Your task to perform on an android device: Open Google Image 0: 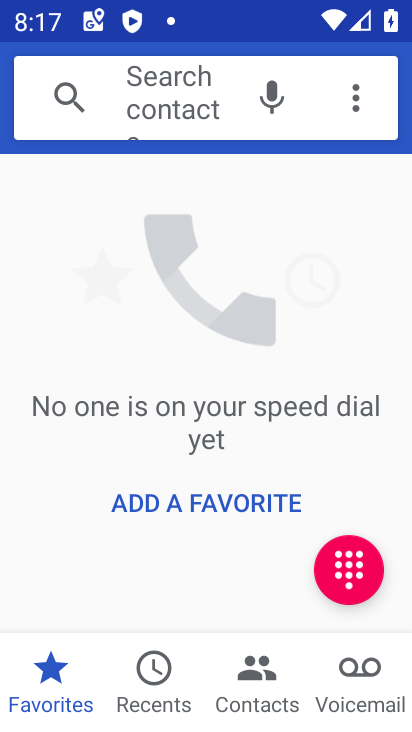
Step 0: press home button
Your task to perform on an android device: Open Google Image 1: 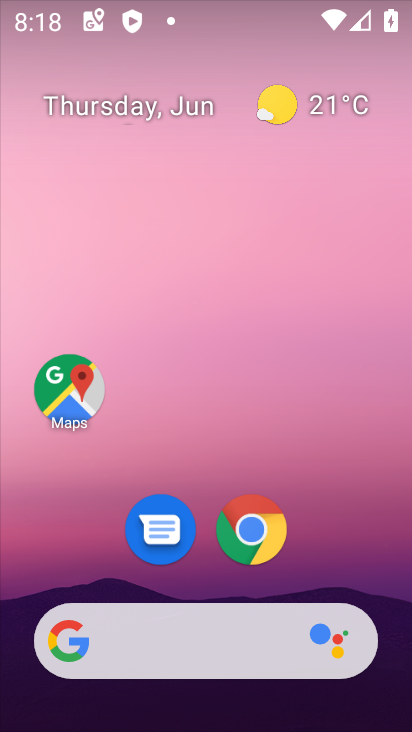
Step 1: click (64, 637)
Your task to perform on an android device: Open Google Image 2: 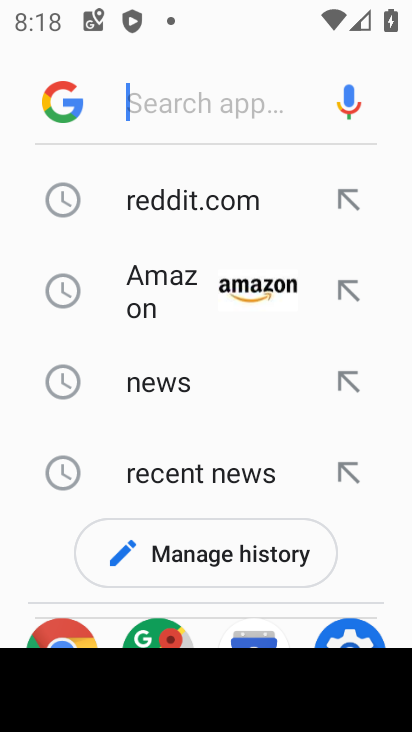
Step 2: task complete